Your task to perform on an android device: empty trash in google photos Image 0: 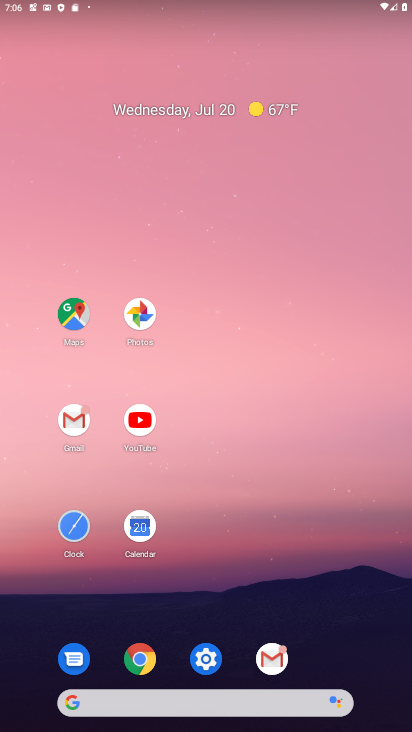
Step 0: click (142, 311)
Your task to perform on an android device: empty trash in google photos Image 1: 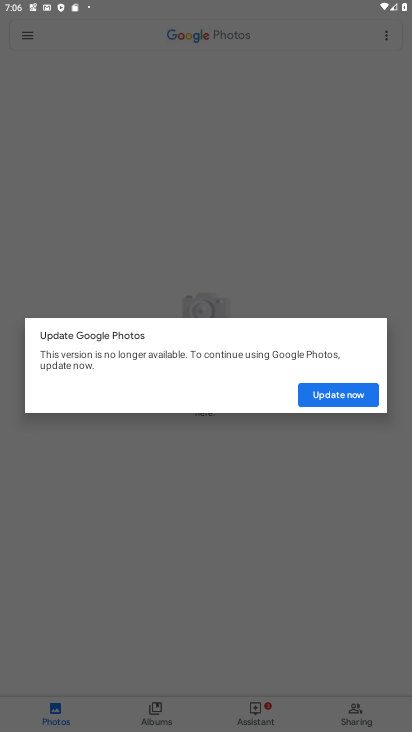
Step 1: click (334, 397)
Your task to perform on an android device: empty trash in google photos Image 2: 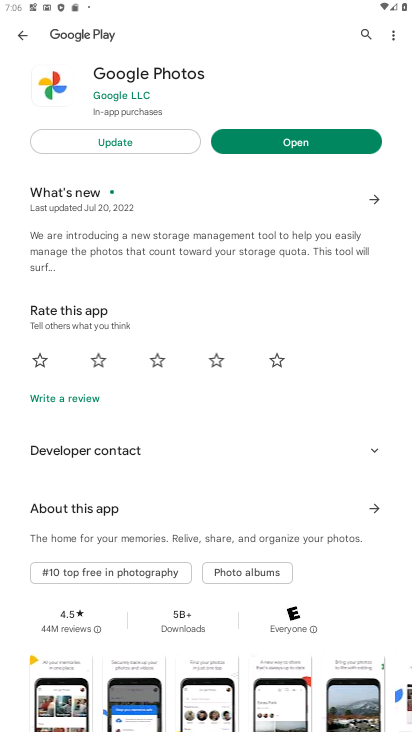
Step 2: click (130, 134)
Your task to perform on an android device: empty trash in google photos Image 3: 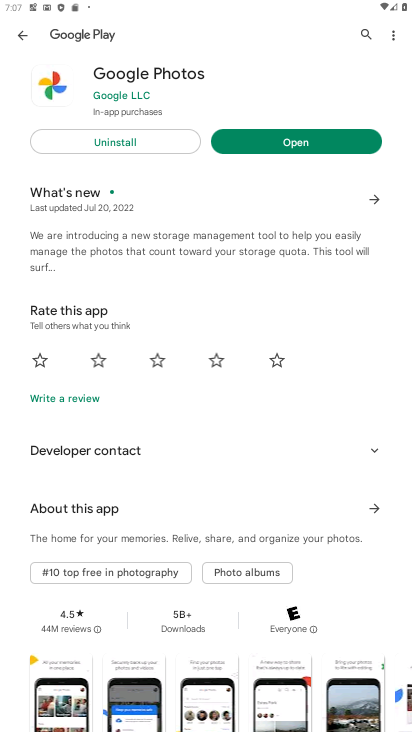
Step 3: click (306, 144)
Your task to perform on an android device: empty trash in google photos Image 4: 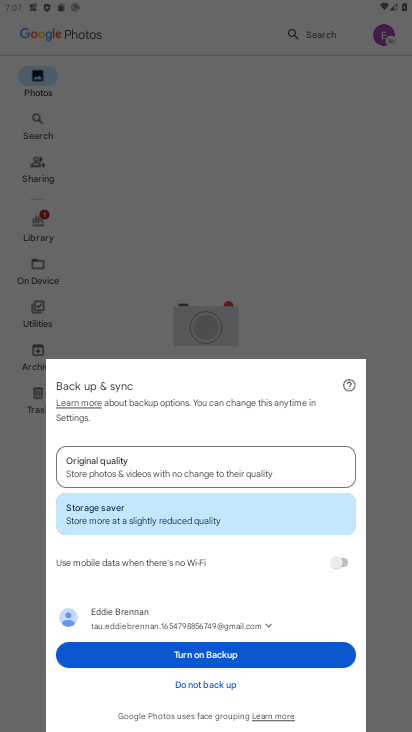
Step 4: click (193, 658)
Your task to perform on an android device: empty trash in google photos Image 5: 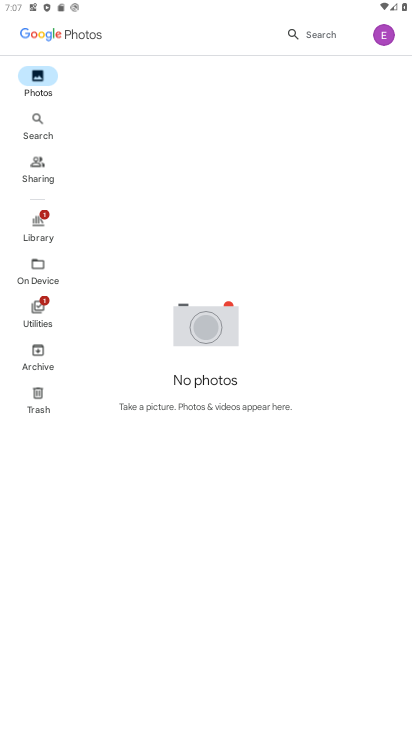
Step 5: click (40, 217)
Your task to perform on an android device: empty trash in google photos Image 6: 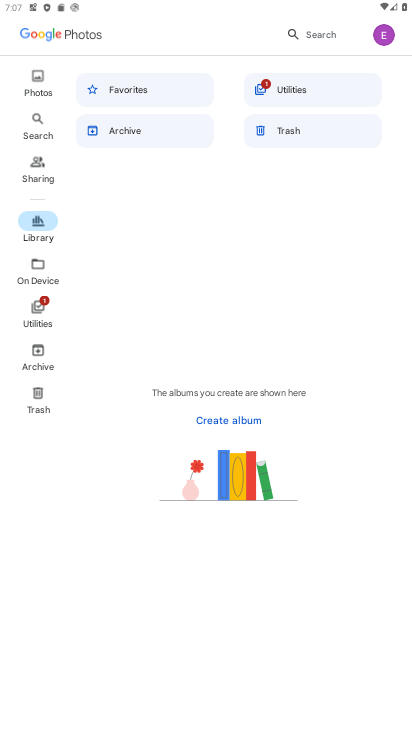
Step 6: click (284, 123)
Your task to perform on an android device: empty trash in google photos Image 7: 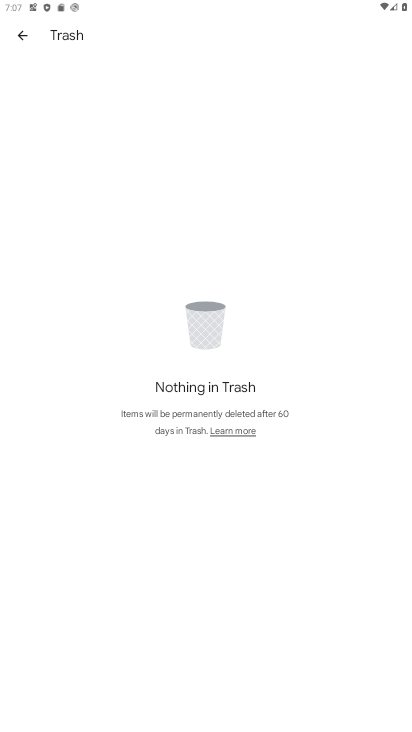
Step 7: task complete